Your task to perform on an android device: Search for vegetarian restaurants on Maps Image 0: 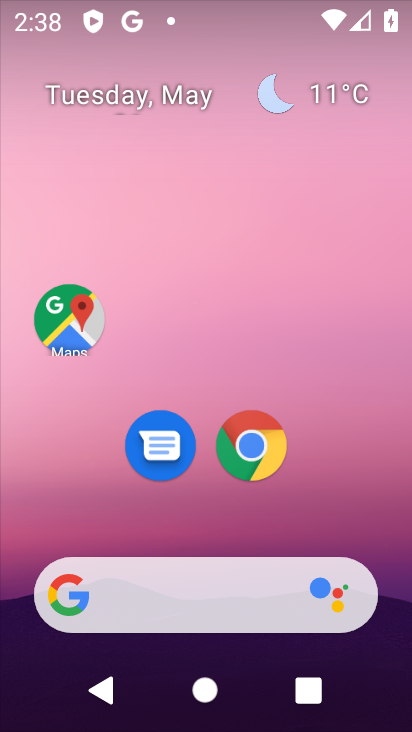
Step 0: click (55, 323)
Your task to perform on an android device: Search for vegetarian restaurants on Maps Image 1: 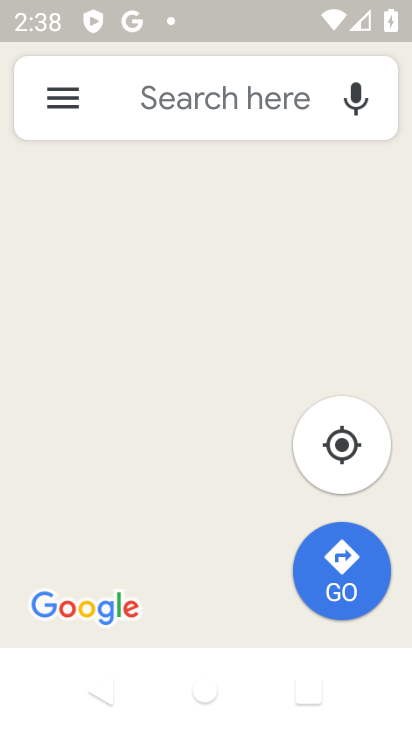
Step 1: click (201, 101)
Your task to perform on an android device: Search for vegetarian restaurants on Maps Image 2: 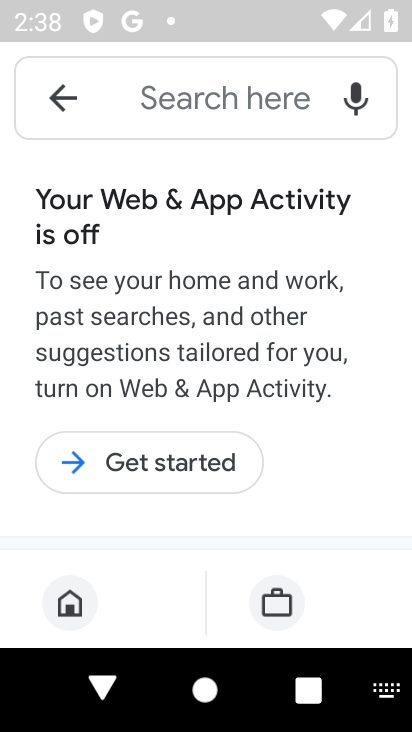
Step 2: drag from (211, 512) to (213, 206)
Your task to perform on an android device: Search for vegetarian restaurants on Maps Image 3: 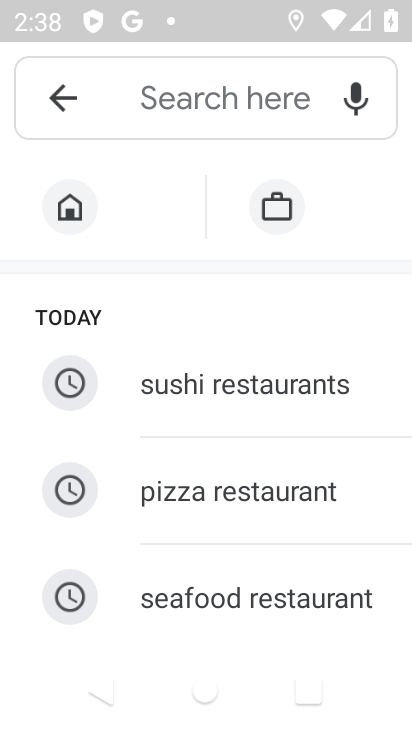
Step 3: drag from (243, 603) to (248, 295)
Your task to perform on an android device: Search for vegetarian restaurants on Maps Image 4: 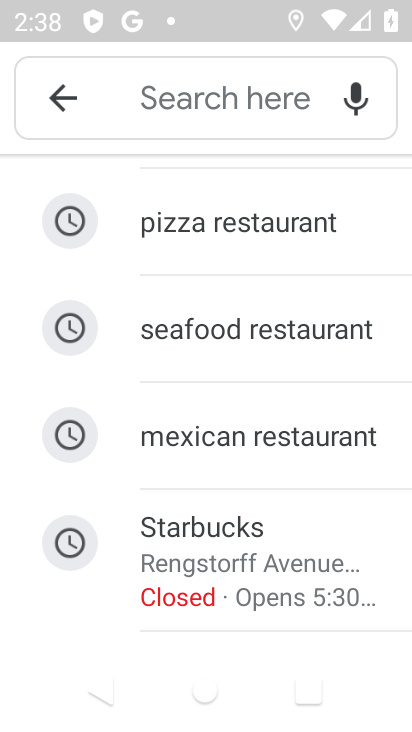
Step 4: drag from (257, 573) to (263, 293)
Your task to perform on an android device: Search for vegetarian restaurants on Maps Image 5: 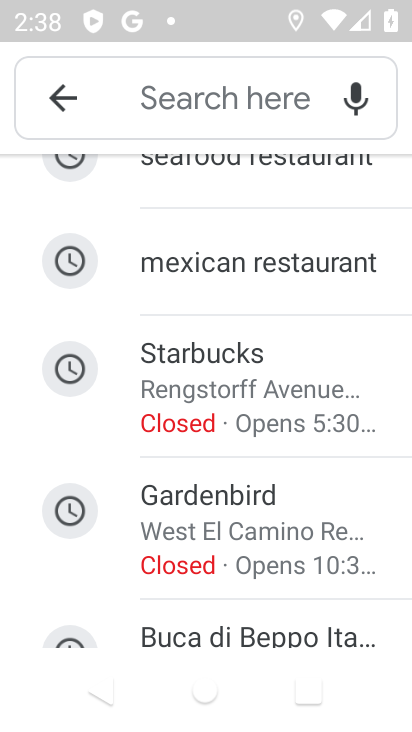
Step 5: drag from (277, 595) to (280, 323)
Your task to perform on an android device: Search for vegetarian restaurants on Maps Image 6: 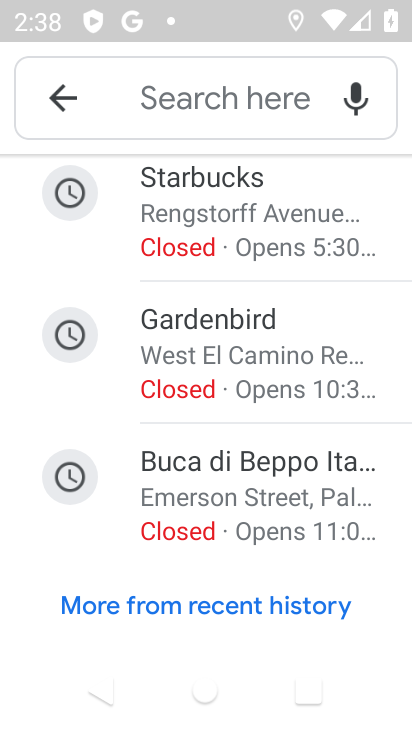
Step 6: drag from (174, 496) to (174, 293)
Your task to perform on an android device: Search for vegetarian restaurants on Maps Image 7: 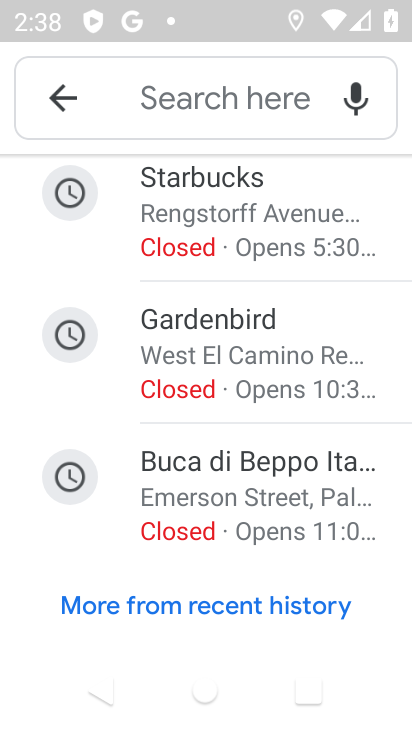
Step 7: click (244, 604)
Your task to perform on an android device: Search for vegetarian restaurants on Maps Image 8: 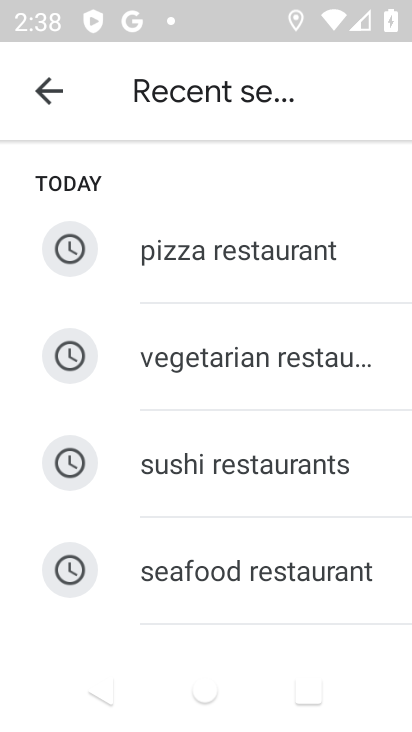
Step 8: drag from (209, 597) to (188, 328)
Your task to perform on an android device: Search for vegetarian restaurants on Maps Image 9: 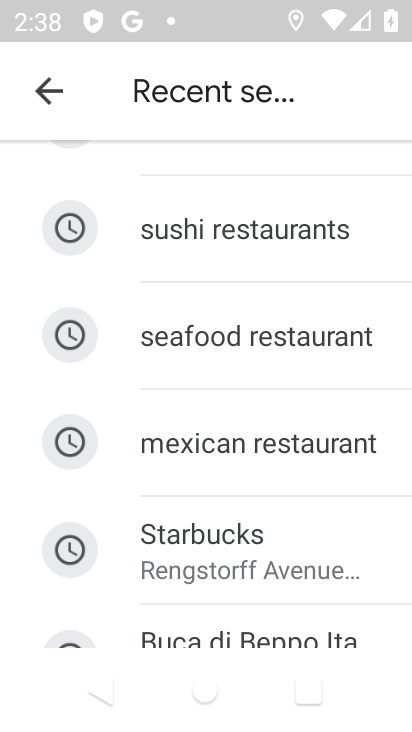
Step 9: drag from (231, 190) to (233, 582)
Your task to perform on an android device: Search for vegetarian restaurants on Maps Image 10: 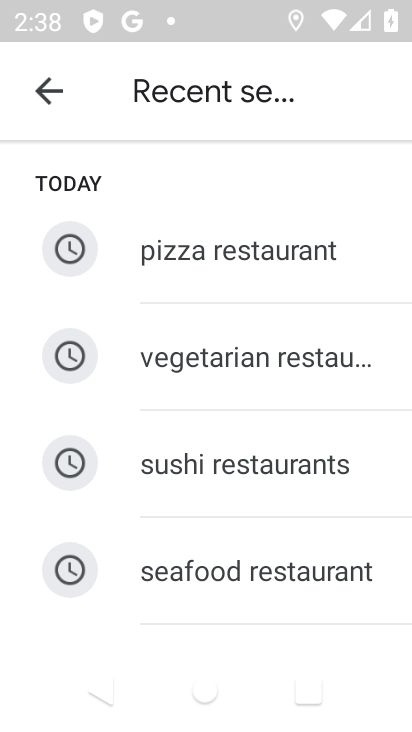
Step 10: click (253, 356)
Your task to perform on an android device: Search for vegetarian restaurants on Maps Image 11: 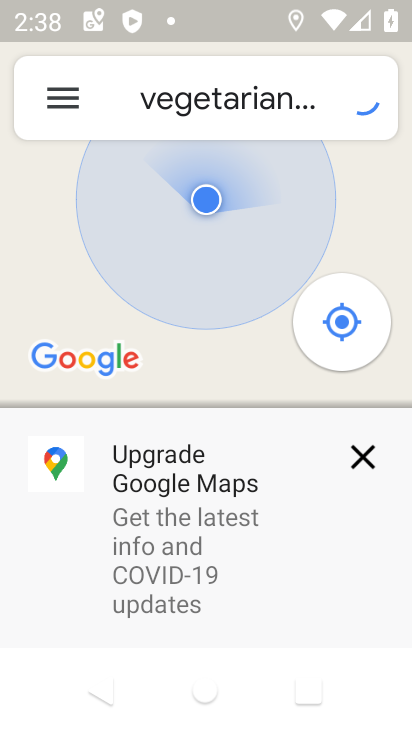
Step 11: task complete